Your task to perform on an android device: move an email to a new category in the gmail app Image 0: 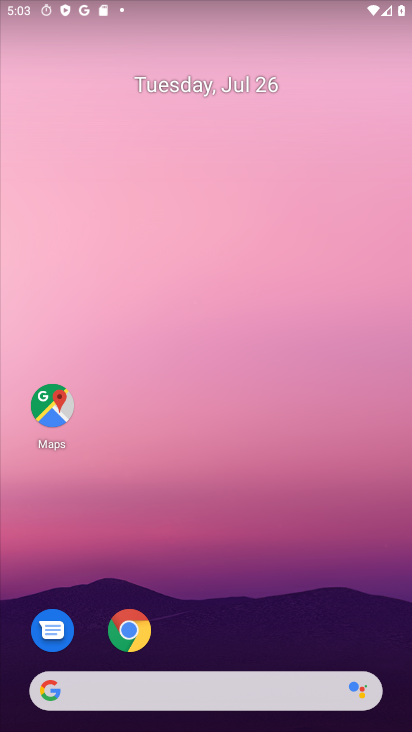
Step 0: drag from (296, 610) to (218, 118)
Your task to perform on an android device: move an email to a new category in the gmail app Image 1: 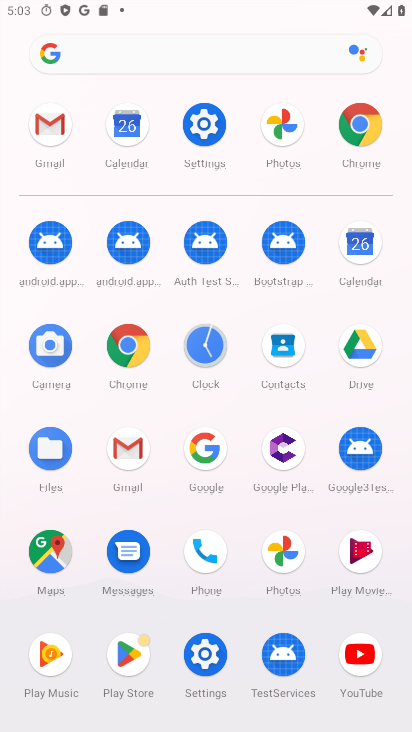
Step 1: click (50, 117)
Your task to perform on an android device: move an email to a new category in the gmail app Image 2: 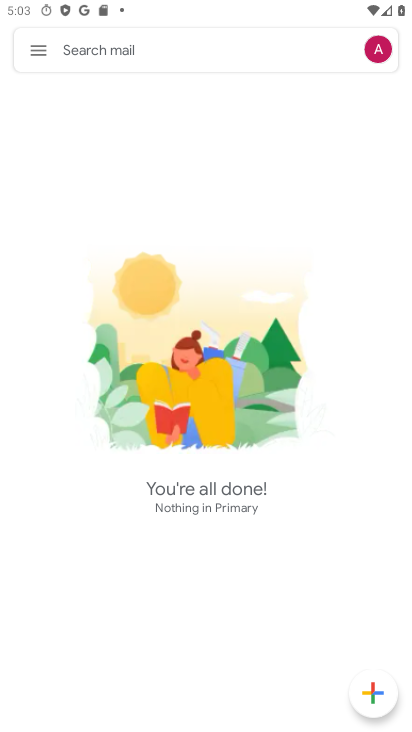
Step 2: click (34, 47)
Your task to perform on an android device: move an email to a new category in the gmail app Image 3: 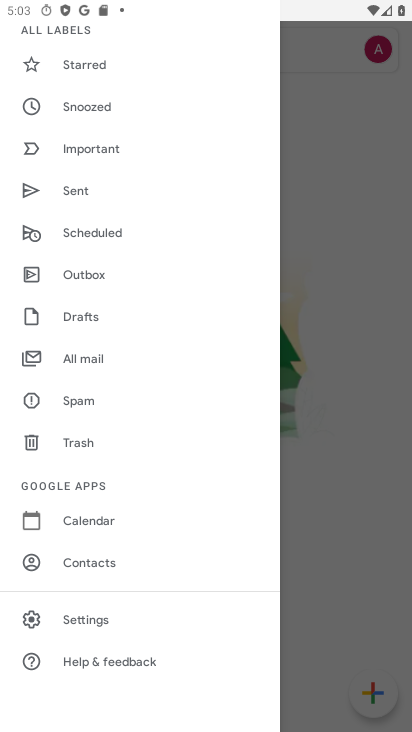
Step 3: click (97, 356)
Your task to perform on an android device: move an email to a new category in the gmail app Image 4: 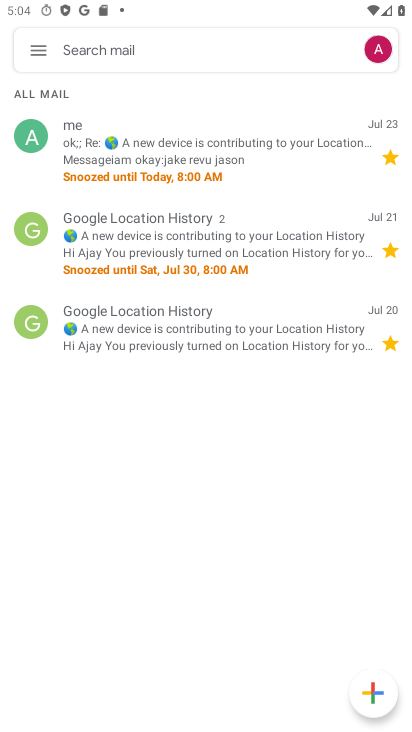
Step 4: click (242, 162)
Your task to perform on an android device: move an email to a new category in the gmail app Image 5: 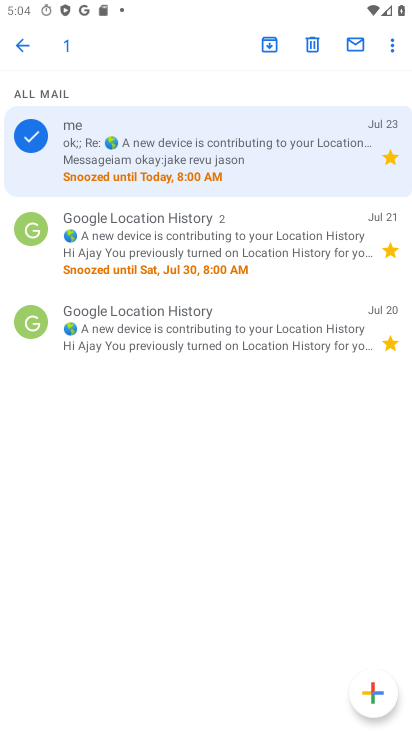
Step 5: click (394, 41)
Your task to perform on an android device: move an email to a new category in the gmail app Image 6: 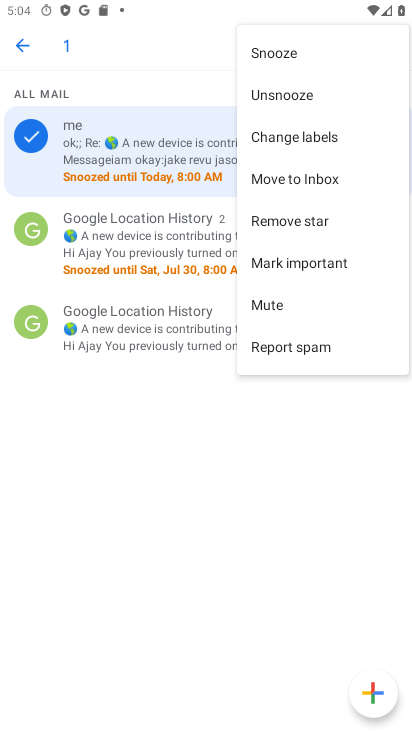
Step 6: click (25, 43)
Your task to perform on an android device: move an email to a new category in the gmail app Image 7: 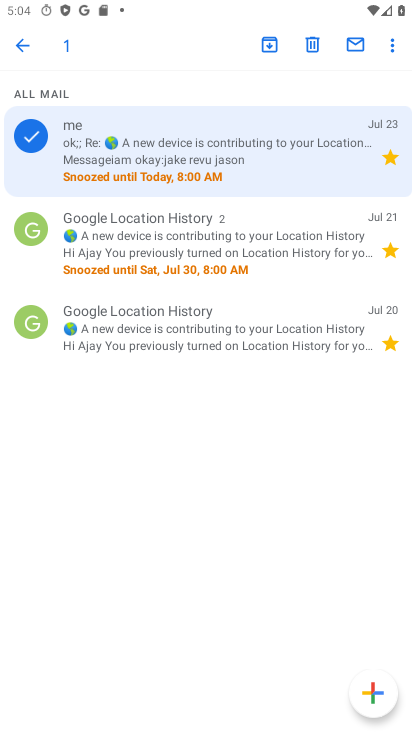
Step 7: click (21, 45)
Your task to perform on an android device: move an email to a new category in the gmail app Image 8: 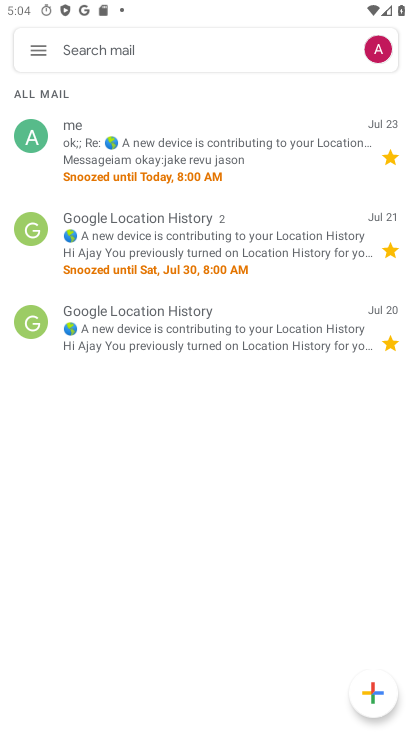
Step 8: click (29, 45)
Your task to perform on an android device: move an email to a new category in the gmail app Image 9: 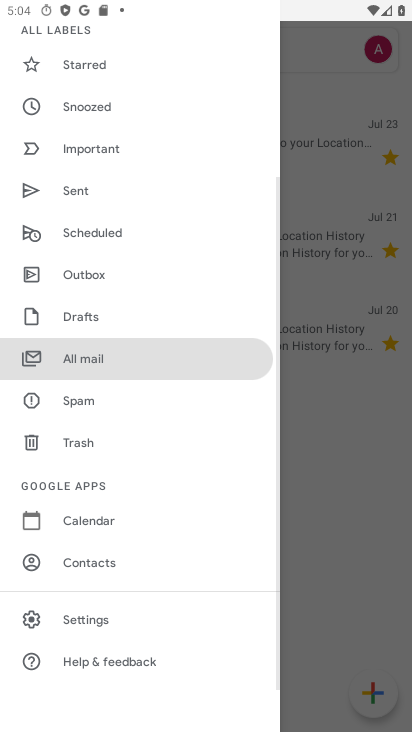
Step 9: click (96, 632)
Your task to perform on an android device: move an email to a new category in the gmail app Image 10: 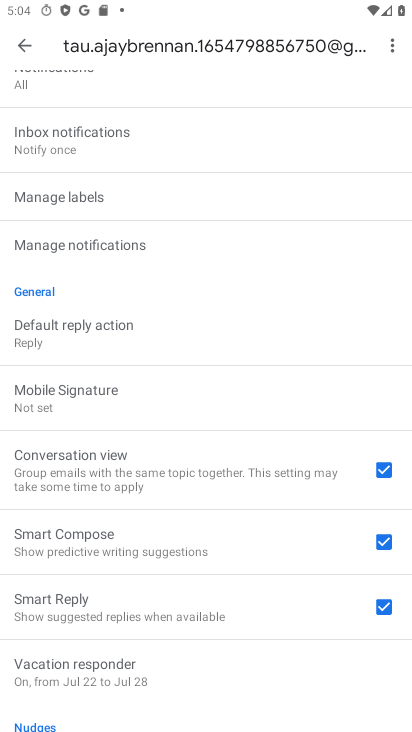
Step 10: drag from (210, 147) to (223, 583)
Your task to perform on an android device: move an email to a new category in the gmail app Image 11: 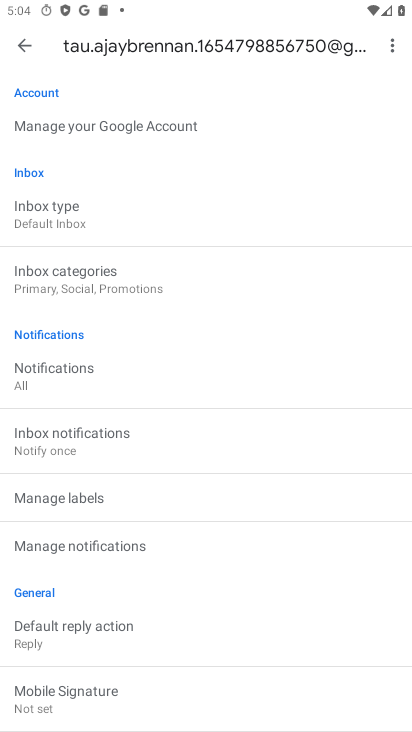
Step 11: drag from (214, 533) to (244, 174)
Your task to perform on an android device: move an email to a new category in the gmail app Image 12: 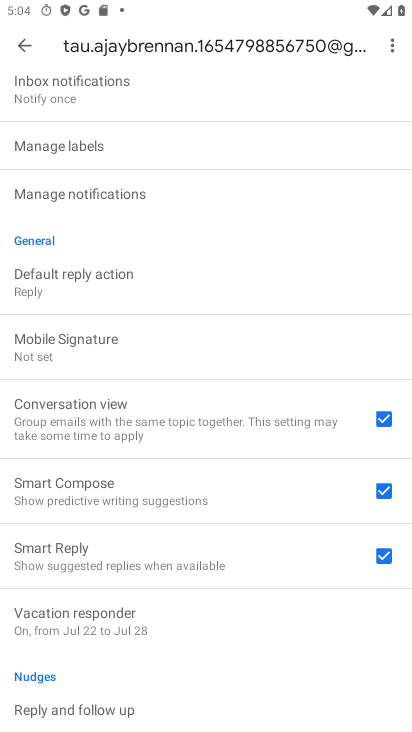
Step 12: click (9, 39)
Your task to perform on an android device: move an email to a new category in the gmail app Image 13: 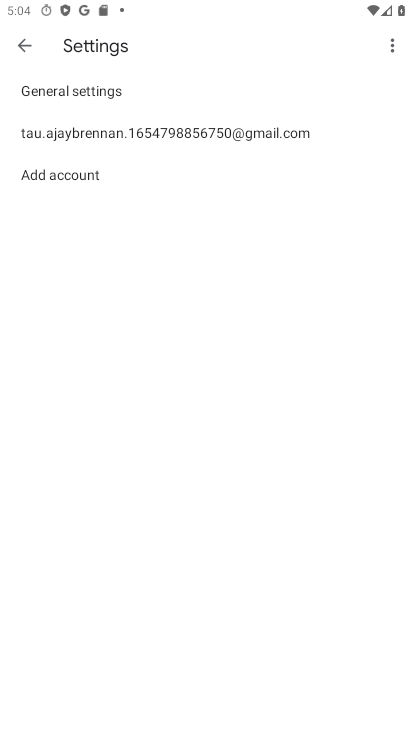
Step 13: task complete